Your task to perform on an android device: Turn off the flashlight Image 0: 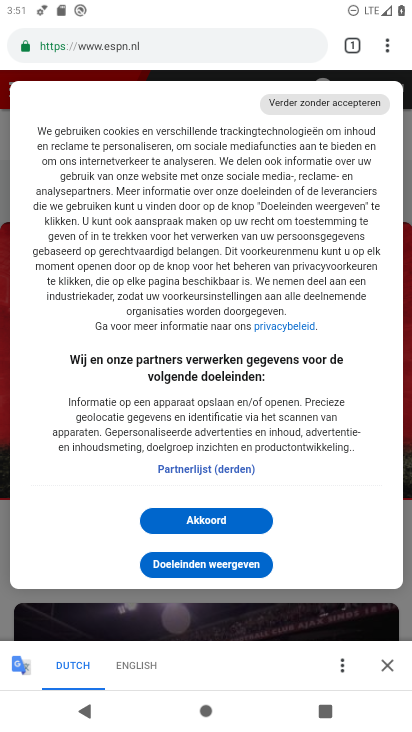
Step 0: press home button
Your task to perform on an android device: Turn off the flashlight Image 1: 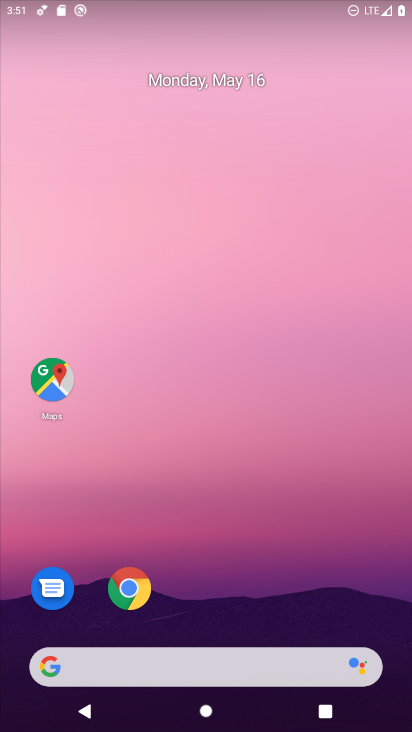
Step 1: task complete